Your task to perform on an android device: change your default location settings in chrome Image 0: 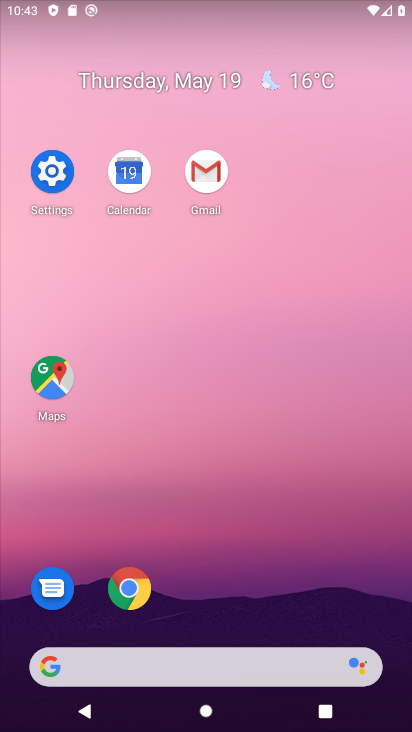
Step 0: click (127, 581)
Your task to perform on an android device: change your default location settings in chrome Image 1: 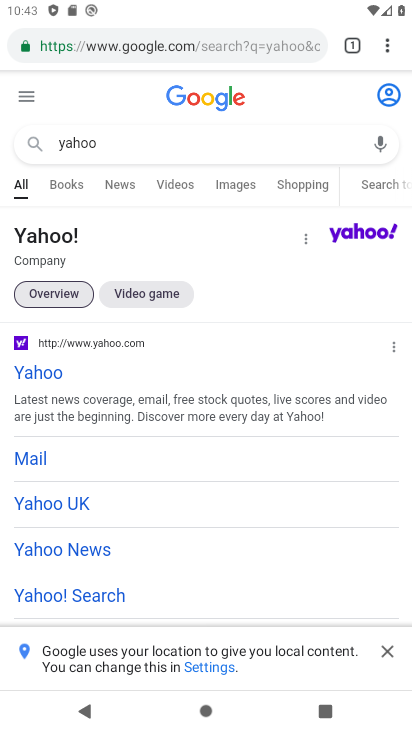
Step 1: click (387, 52)
Your task to perform on an android device: change your default location settings in chrome Image 2: 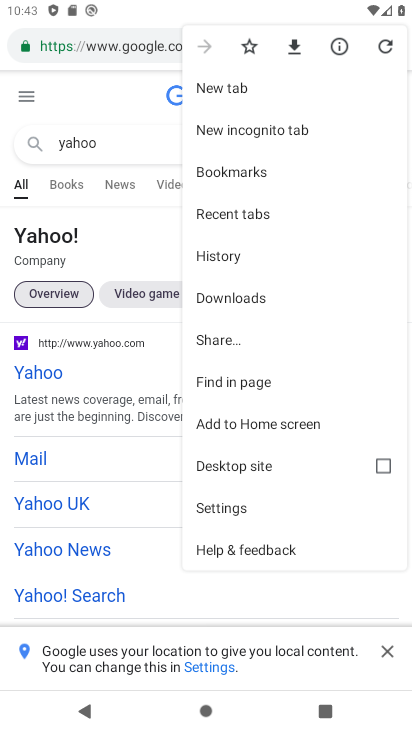
Step 2: click (254, 497)
Your task to perform on an android device: change your default location settings in chrome Image 3: 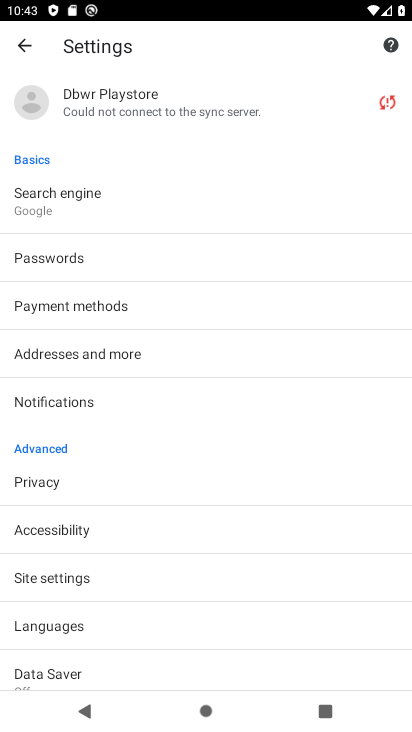
Step 3: drag from (110, 604) to (211, 267)
Your task to perform on an android device: change your default location settings in chrome Image 4: 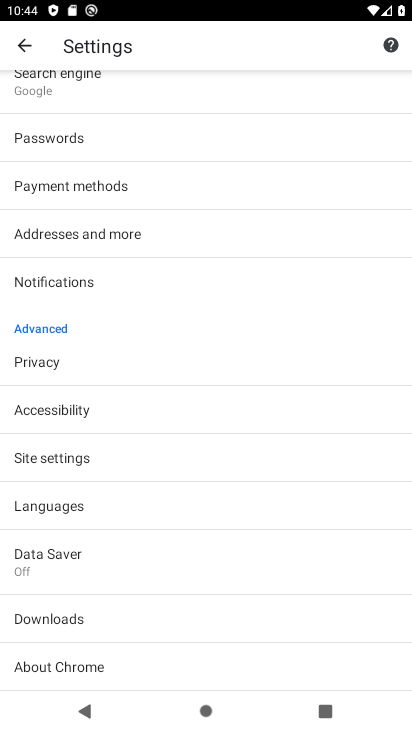
Step 4: click (145, 461)
Your task to perform on an android device: change your default location settings in chrome Image 5: 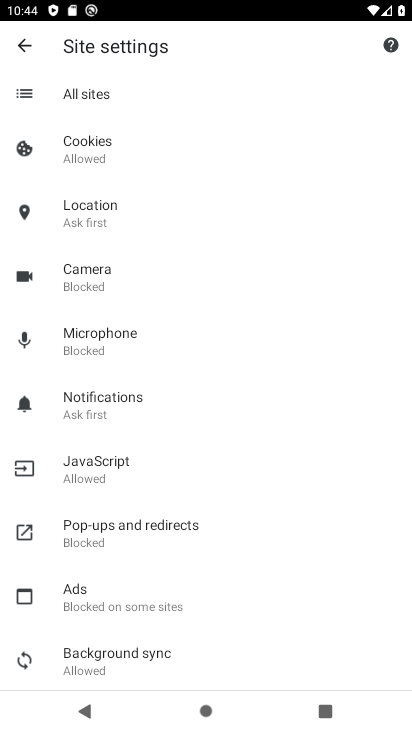
Step 5: click (167, 217)
Your task to perform on an android device: change your default location settings in chrome Image 6: 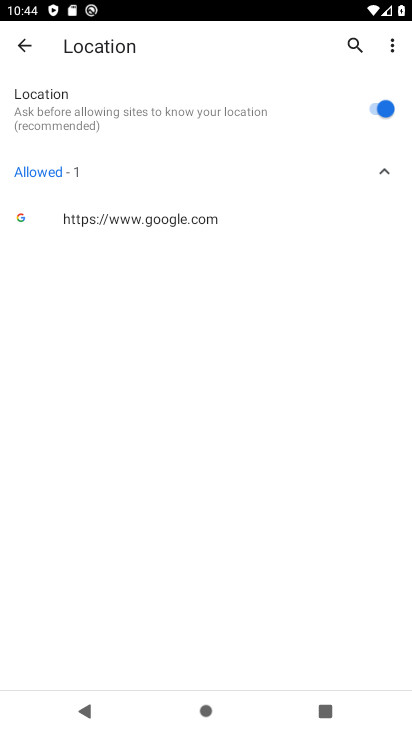
Step 6: click (378, 112)
Your task to perform on an android device: change your default location settings in chrome Image 7: 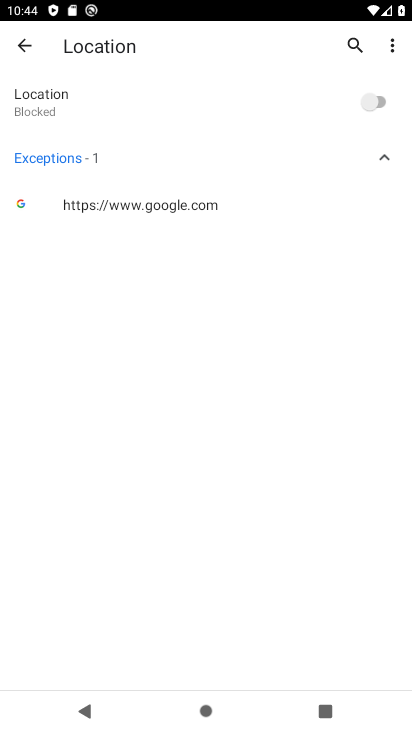
Step 7: task complete